Your task to perform on an android device: Open the phone app and click the voicemail tab. Image 0: 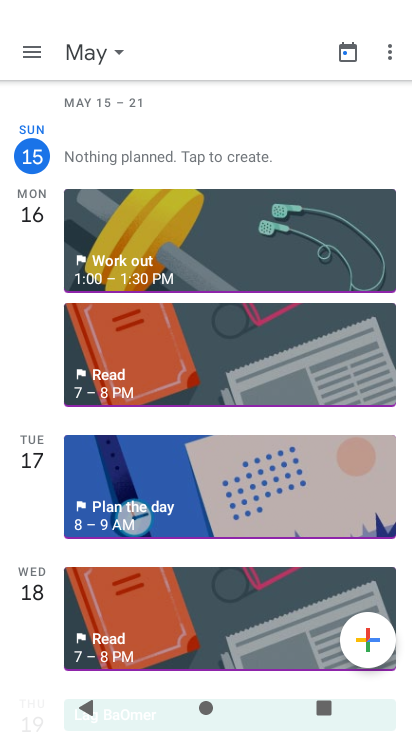
Step 0: press home button
Your task to perform on an android device: Open the phone app and click the voicemail tab. Image 1: 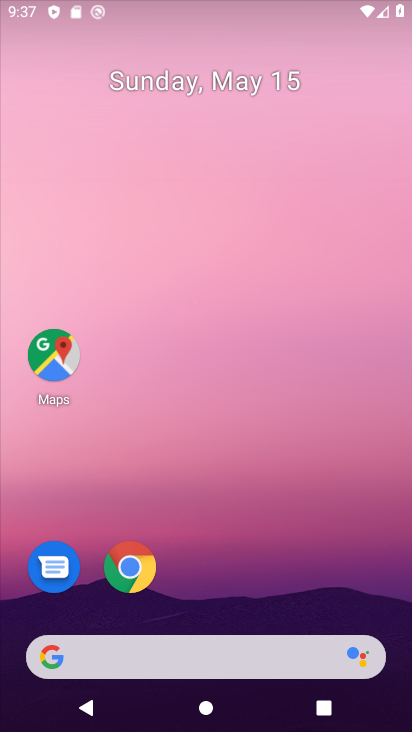
Step 1: drag from (300, 543) to (274, 109)
Your task to perform on an android device: Open the phone app and click the voicemail tab. Image 2: 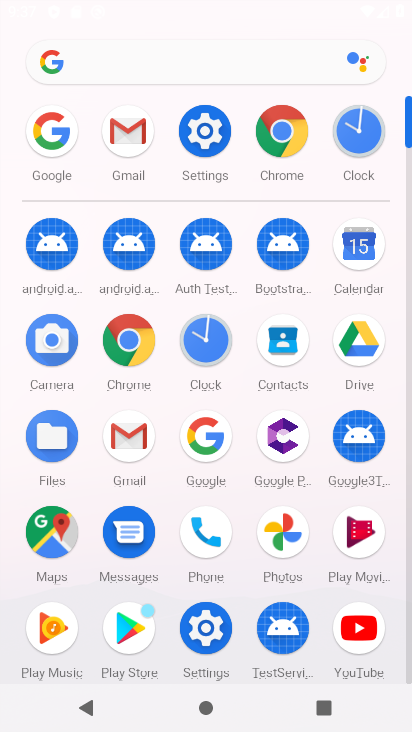
Step 2: click (203, 543)
Your task to perform on an android device: Open the phone app and click the voicemail tab. Image 3: 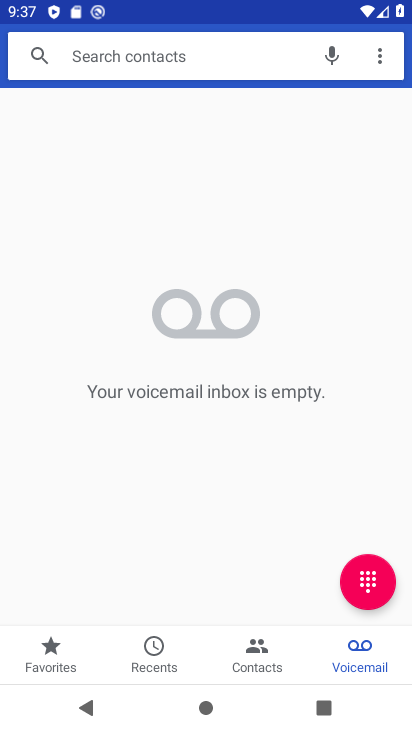
Step 3: click (350, 656)
Your task to perform on an android device: Open the phone app and click the voicemail tab. Image 4: 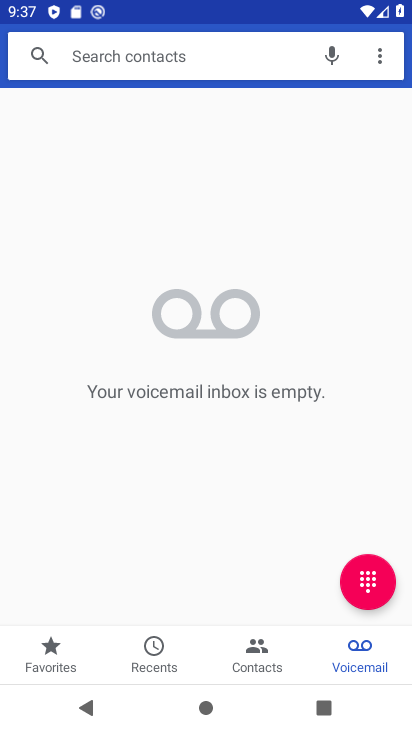
Step 4: task complete